Your task to perform on an android device: turn off priority inbox in the gmail app Image 0: 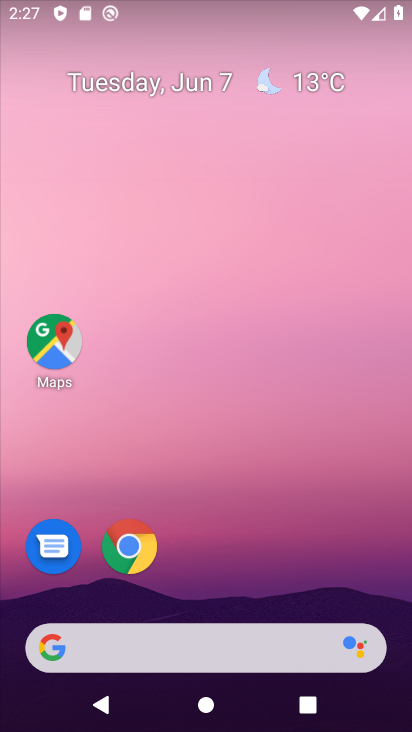
Step 0: drag from (270, 568) to (278, 185)
Your task to perform on an android device: turn off priority inbox in the gmail app Image 1: 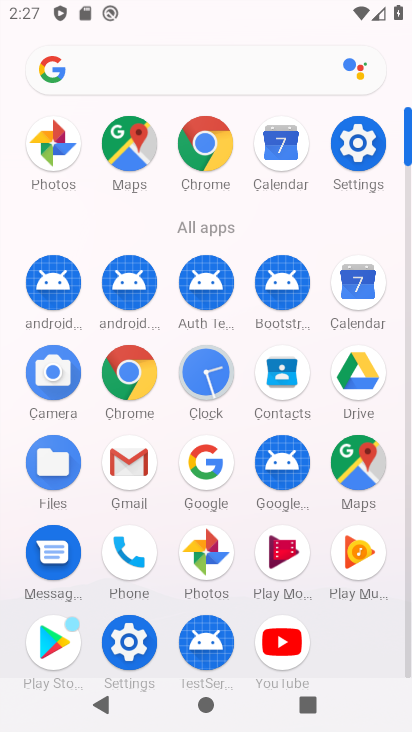
Step 1: click (129, 470)
Your task to perform on an android device: turn off priority inbox in the gmail app Image 2: 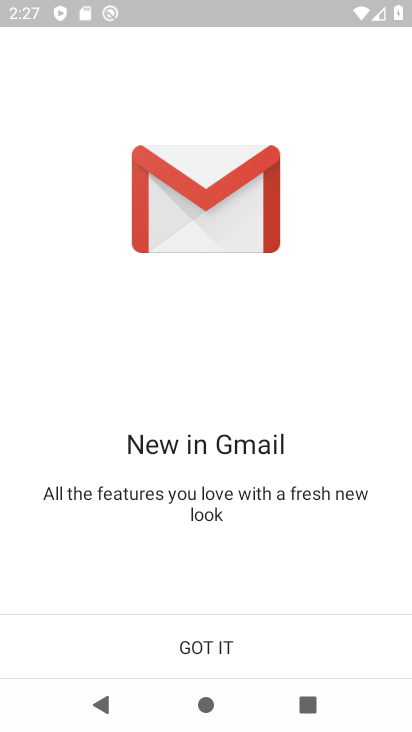
Step 2: click (228, 652)
Your task to perform on an android device: turn off priority inbox in the gmail app Image 3: 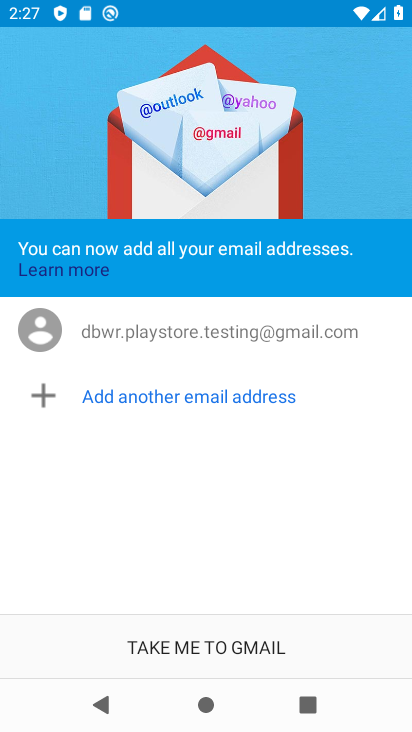
Step 3: click (186, 655)
Your task to perform on an android device: turn off priority inbox in the gmail app Image 4: 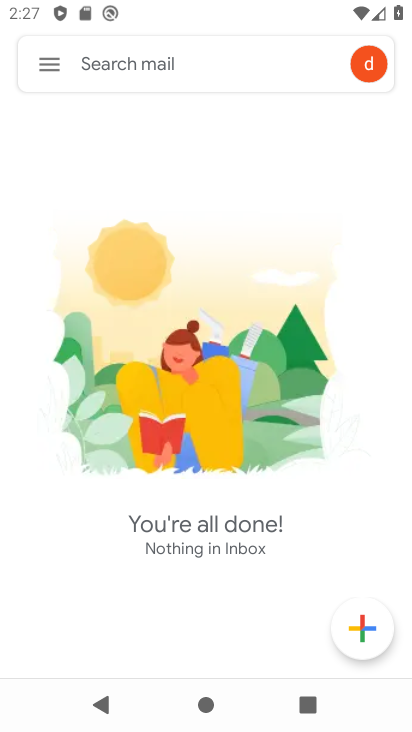
Step 4: click (56, 72)
Your task to perform on an android device: turn off priority inbox in the gmail app Image 5: 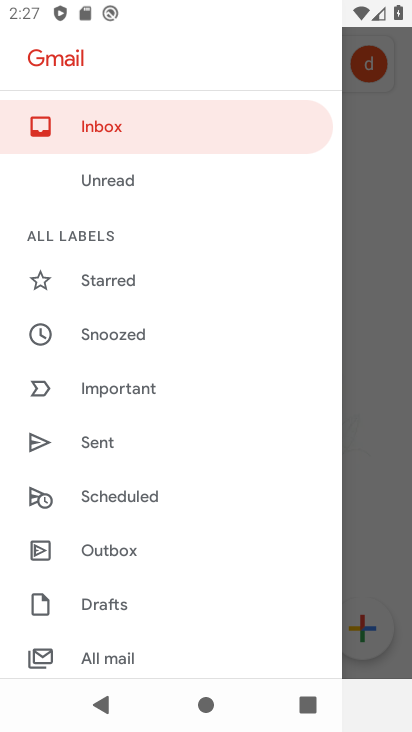
Step 5: drag from (260, 429) to (241, 297)
Your task to perform on an android device: turn off priority inbox in the gmail app Image 6: 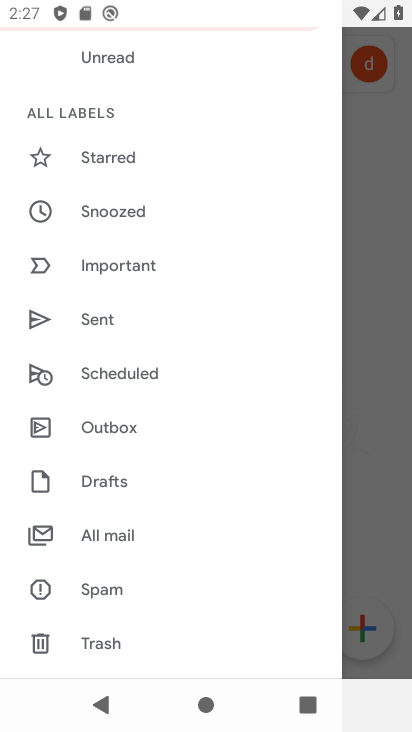
Step 6: drag from (224, 468) to (220, 322)
Your task to perform on an android device: turn off priority inbox in the gmail app Image 7: 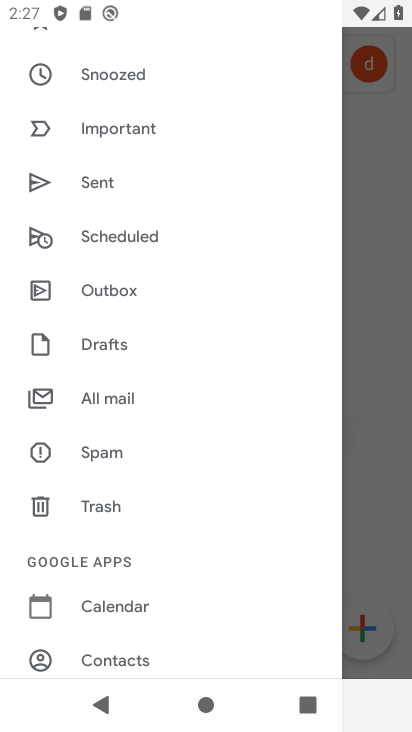
Step 7: drag from (207, 512) to (212, 302)
Your task to perform on an android device: turn off priority inbox in the gmail app Image 8: 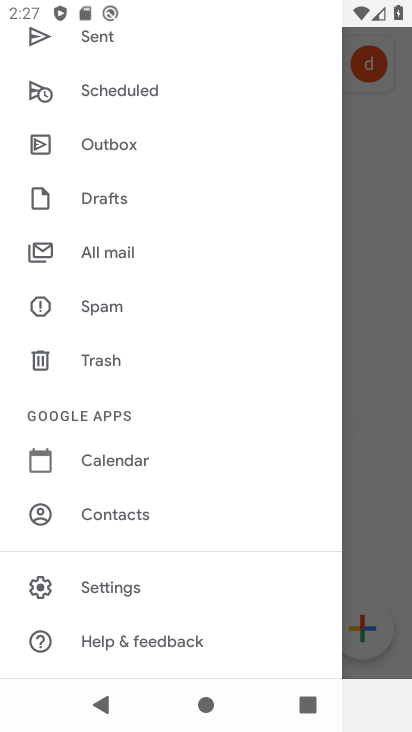
Step 8: click (140, 601)
Your task to perform on an android device: turn off priority inbox in the gmail app Image 9: 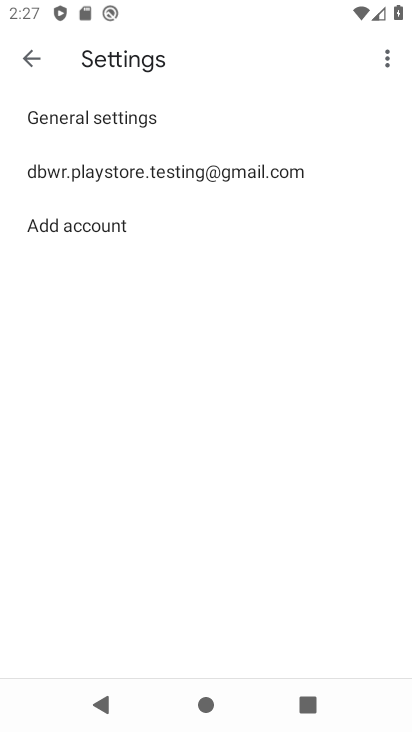
Step 9: click (141, 169)
Your task to perform on an android device: turn off priority inbox in the gmail app Image 10: 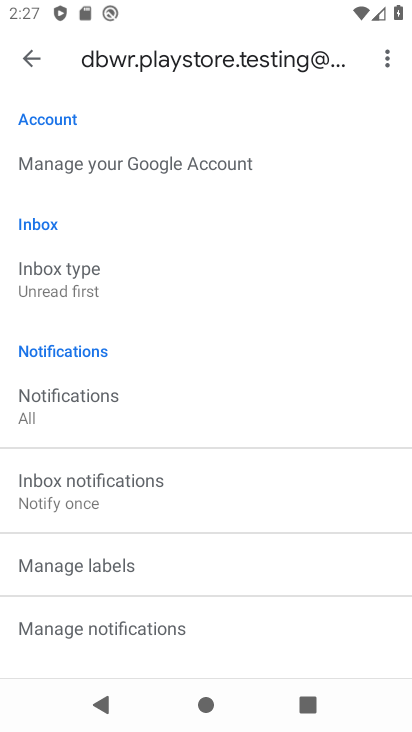
Step 10: drag from (264, 415) to (260, 336)
Your task to perform on an android device: turn off priority inbox in the gmail app Image 11: 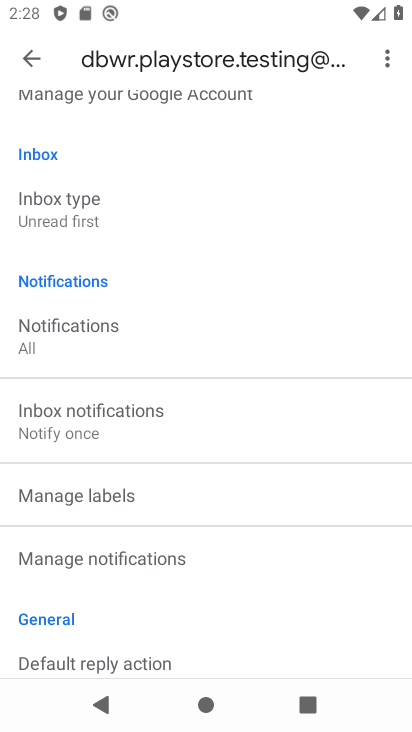
Step 11: click (77, 230)
Your task to perform on an android device: turn off priority inbox in the gmail app Image 12: 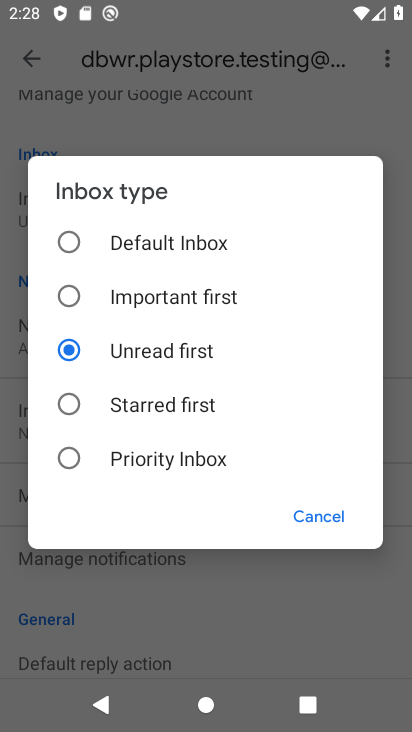
Step 12: task complete